Your task to perform on an android device: visit the assistant section in the google photos Image 0: 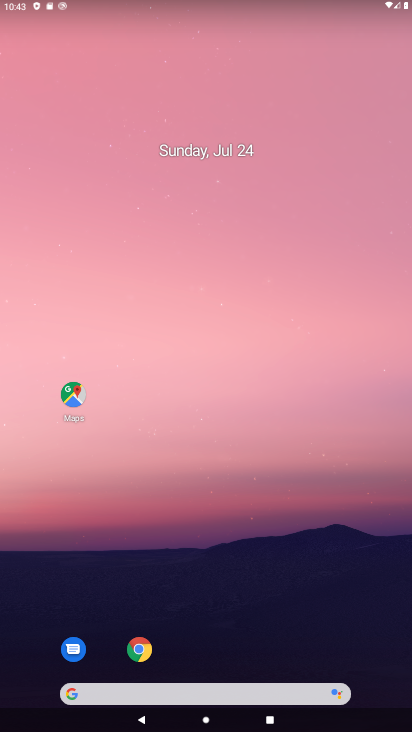
Step 0: drag from (199, 691) to (152, 194)
Your task to perform on an android device: visit the assistant section in the google photos Image 1: 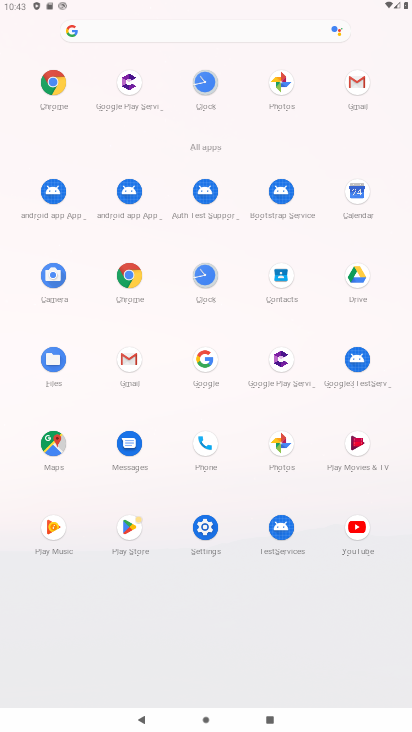
Step 1: click (272, 440)
Your task to perform on an android device: visit the assistant section in the google photos Image 2: 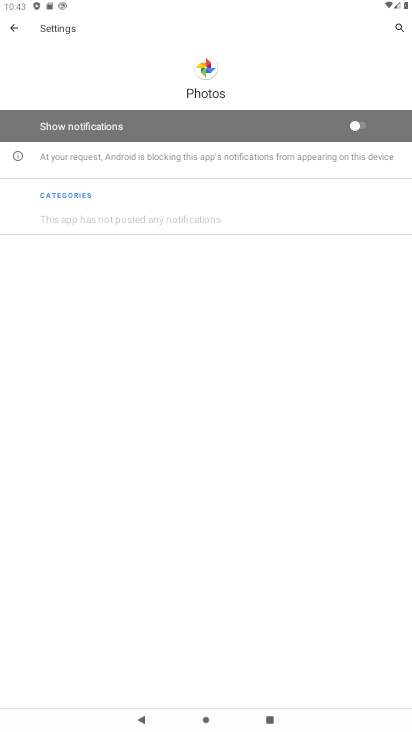
Step 2: click (13, 24)
Your task to perform on an android device: visit the assistant section in the google photos Image 3: 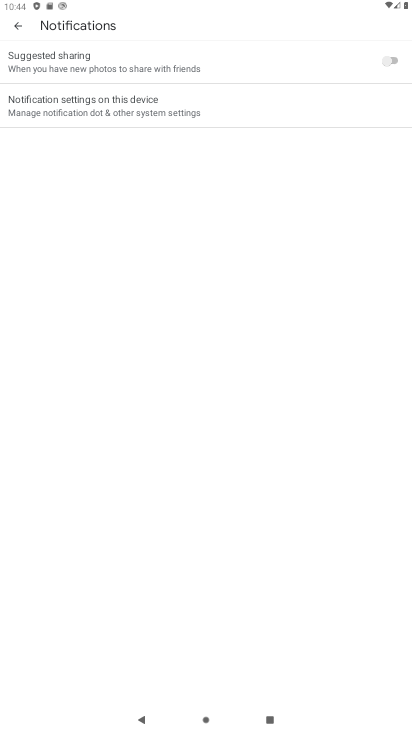
Step 3: click (13, 24)
Your task to perform on an android device: visit the assistant section in the google photos Image 4: 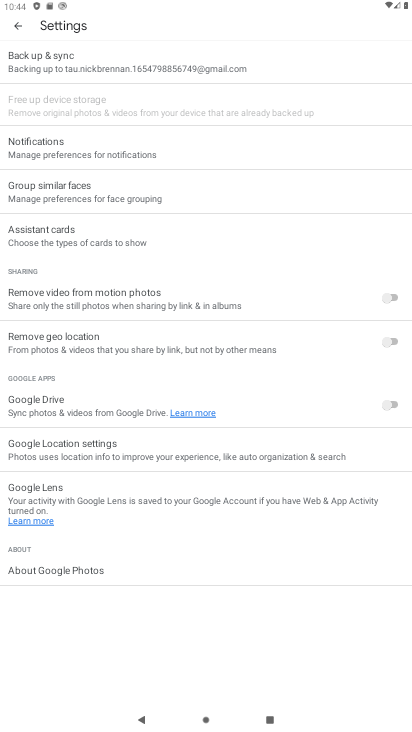
Step 4: click (13, 26)
Your task to perform on an android device: visit the assistant section in the google photos Image 5: 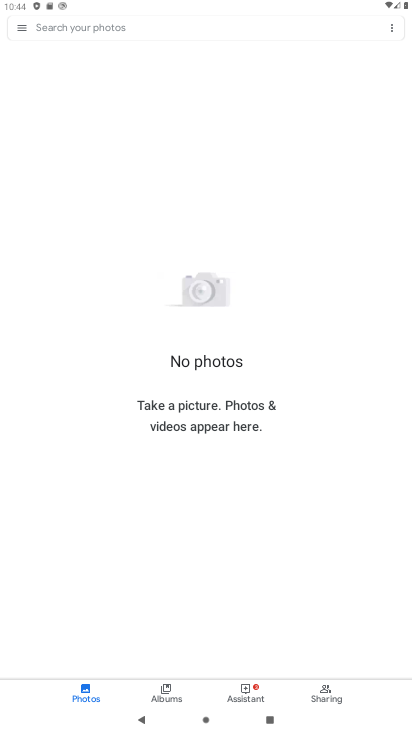
Step 5: click (242, 693)
Your task to perform on an android device: visit the assistant section in the google photos Image 6: 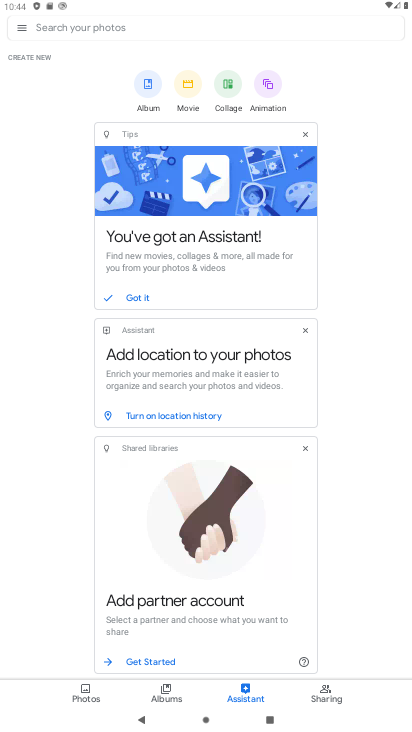
Step 6: task complete